Your task to perform on an android device: Go to Maps Image 0: 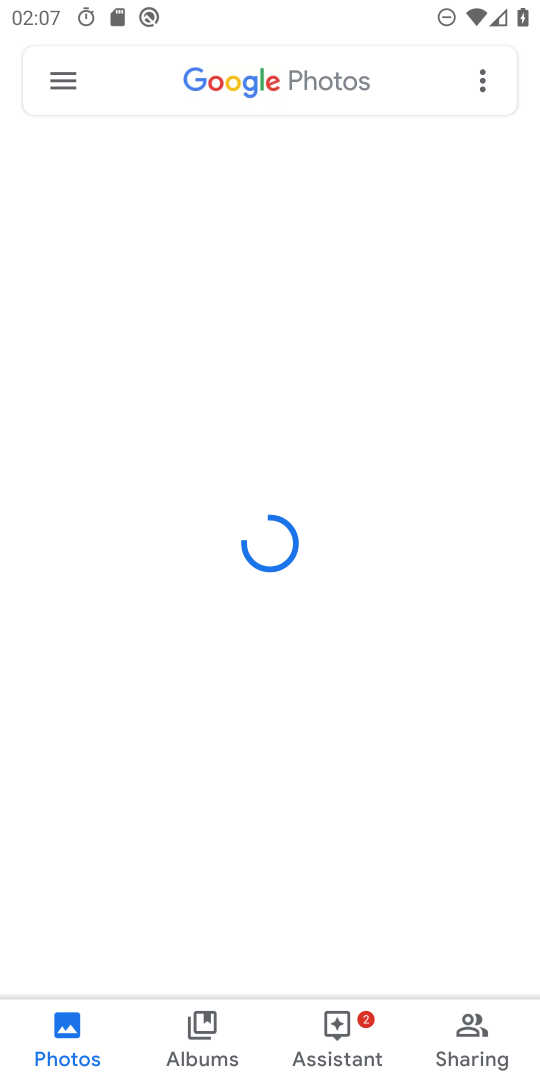
Step 0: press home button
Your task to perform on an android device: Go to Maps Image 1: 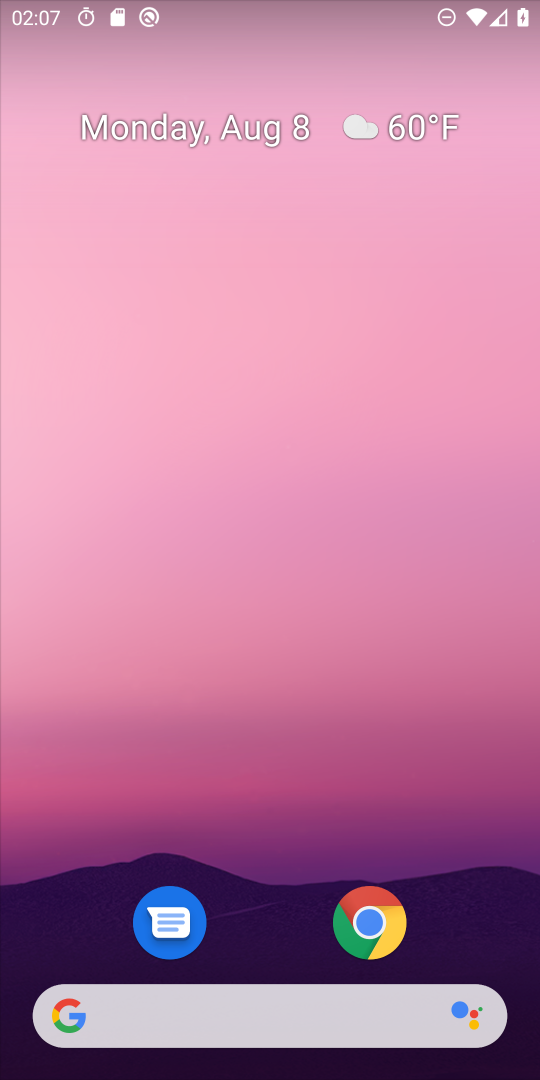
Step 1: drag from (244, 784) to (282, 157)
Your task to perform on an android device: Go to Maps Image 2: 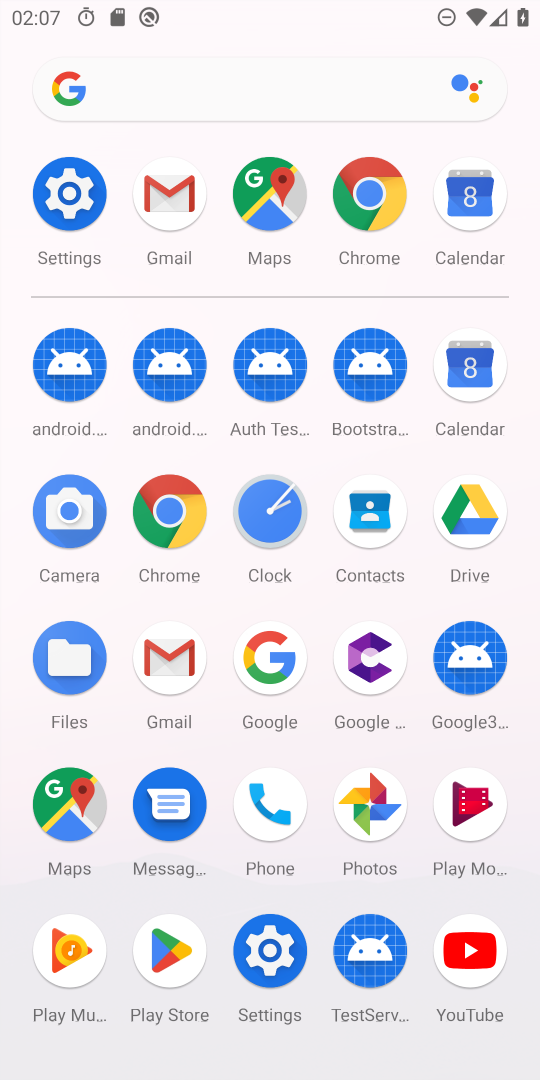
Step 2: click (83, 788)
Your task to perform on an android device: Go to Maps Image 3: 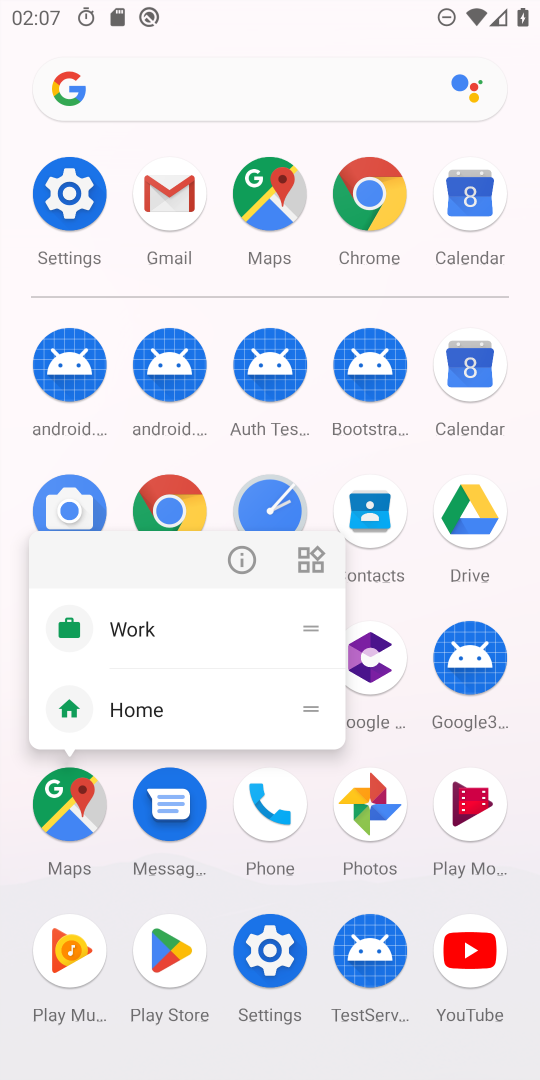
Step 3: click (62, 810)
Your task to perform on an android device: Go to Maps Image 4: 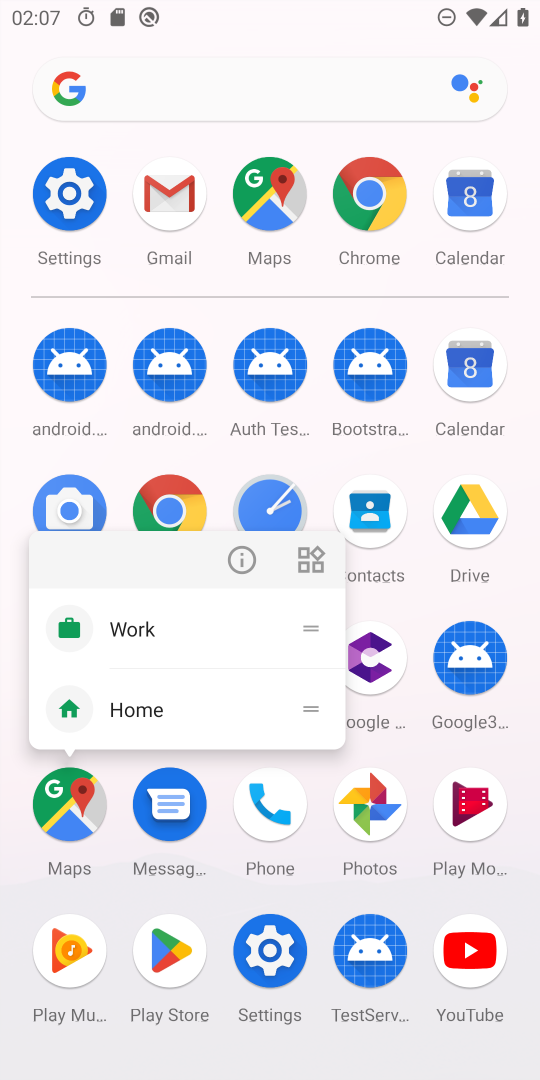
Step 4: click (67, 797)
Your task to perform on an android device: Go to Maps Image 5: 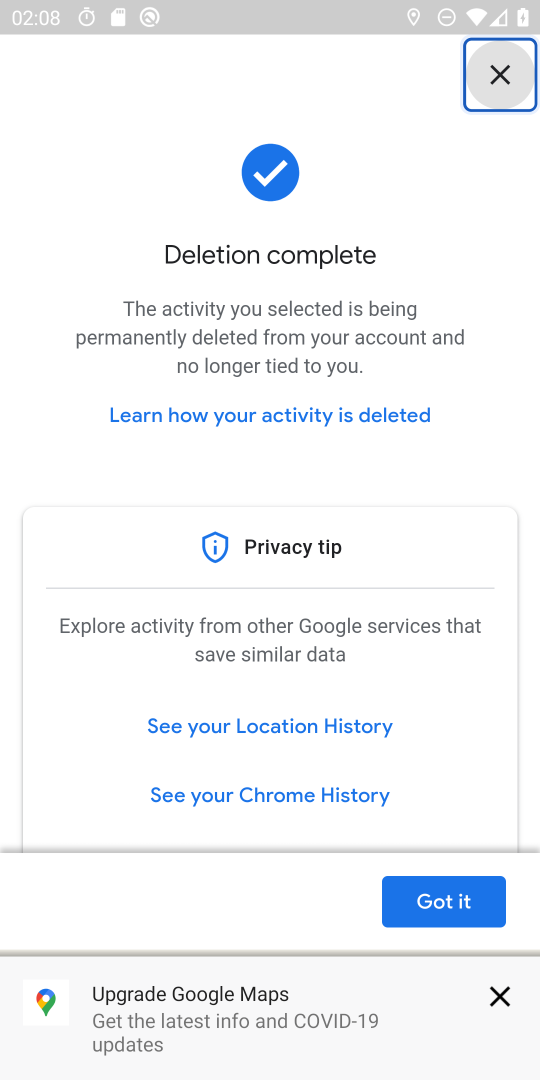
Step 5: click (450, 897)
Your task to perform on an android device: Go to Maps Image 6: 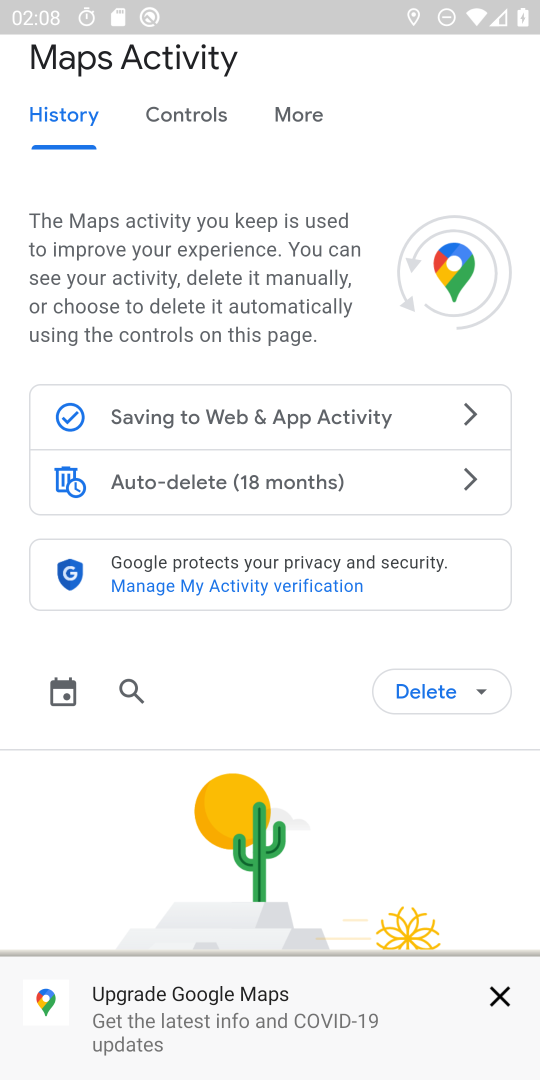
Step 6: task complete